Your task to perform on an android device: Open calendar and show me the fourth week of next month Image 0: 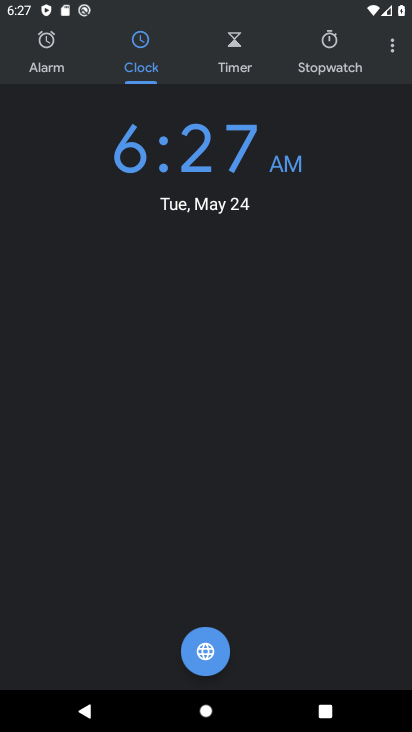
Step 0: press home button
Your task to perform on an android device: Open calendar and show me the fourth week of next month Image 1: 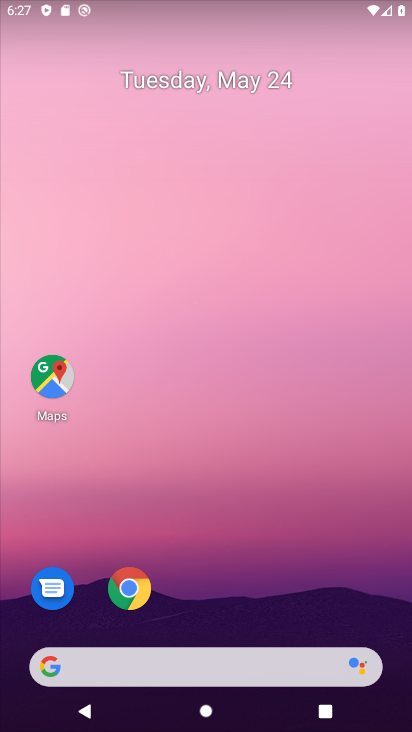
Step 1: drag from (145, 647) to (266, 145)
Your task to perform on an android device: Open calendar and show me the fourth week of next month Image 2: 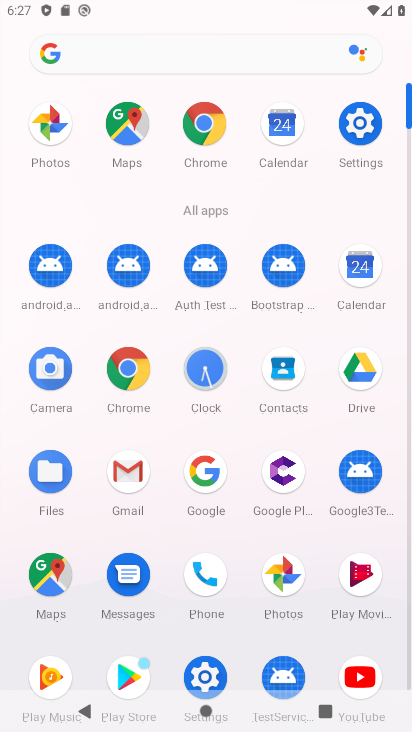
Step 2: click (370, 277)
Your task to perform on an android device: Open calendar and show me the fourth week of next month Image 3: 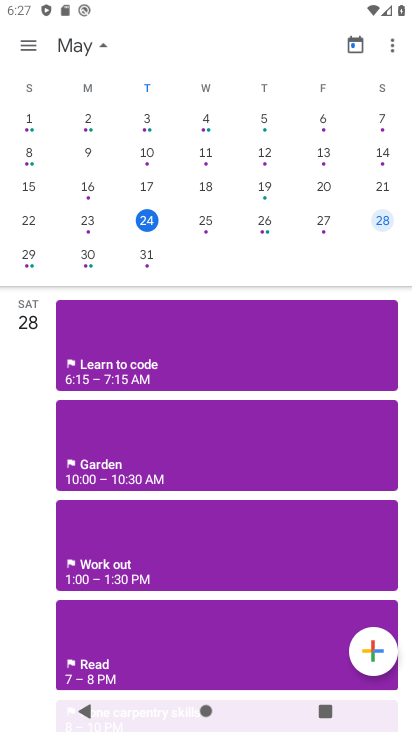
Step 3: drag from (367, 115) to (15, 157)
Your task to perform on an android device: Open calendar and show me the fourth week of next month Image 4: 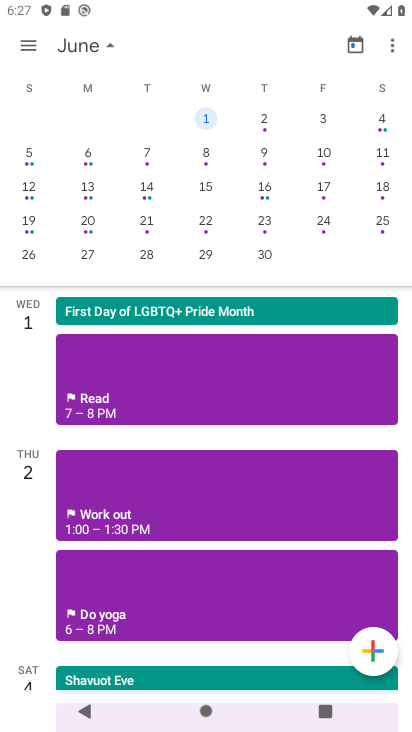
Step 4: click (269, 216)
Your task to perform on an android device: Open calendar and show me the fourth week of next month Image 5: 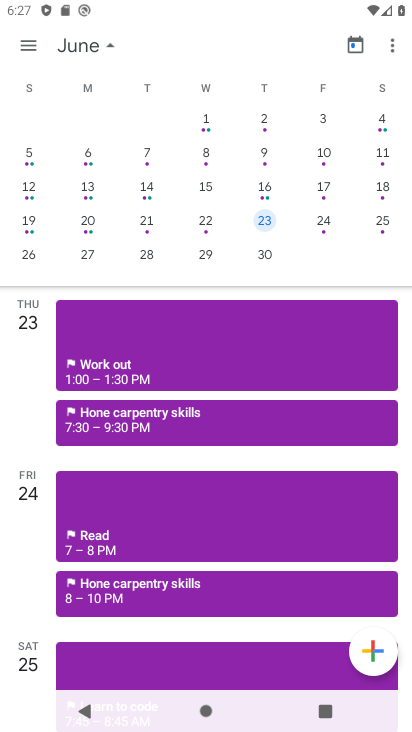
Step 5: click (29, 44)
Your task to perform on an android device: Open calendar and show me the fourth week of next month Image 6: 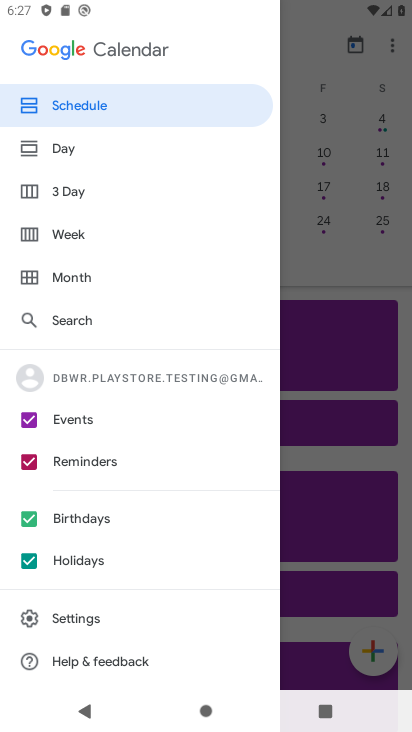
Step 6: click (76, 235)
Your task to perform on an android device: Open calendar and show me the fourth week of next month Image 7: 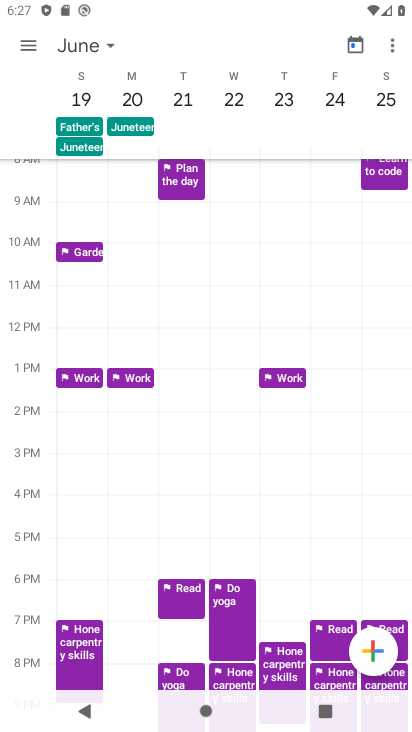
Step 7: task complete